Your task to perform on an android device: delete location history Image 0: 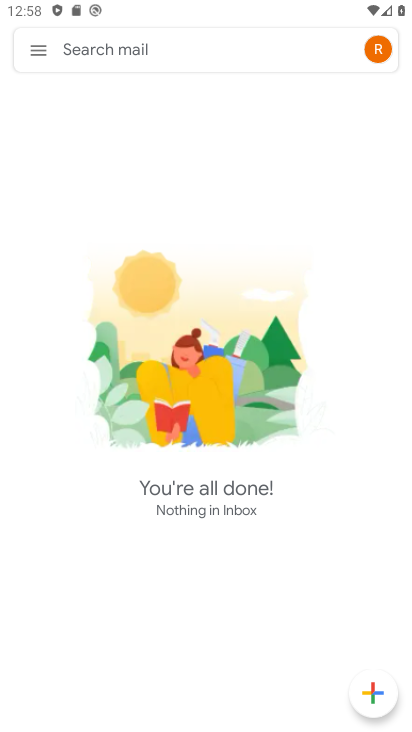
Step 0: press home button
Your task to perform on an android device: delete location history Image 1: 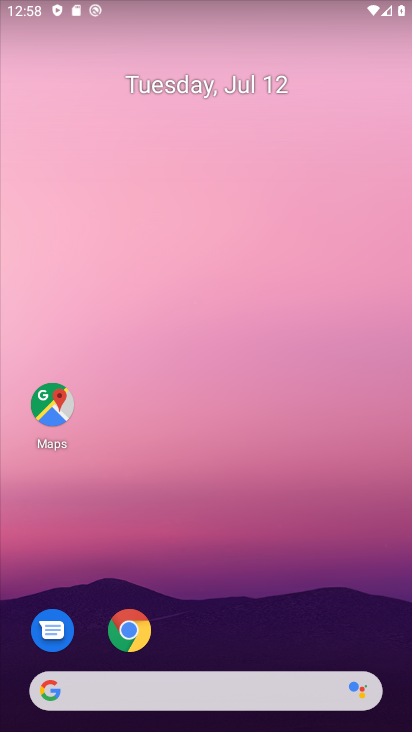
Step 1: click (53, 405)
Your task to perform on an android device: delete location history Image 2: 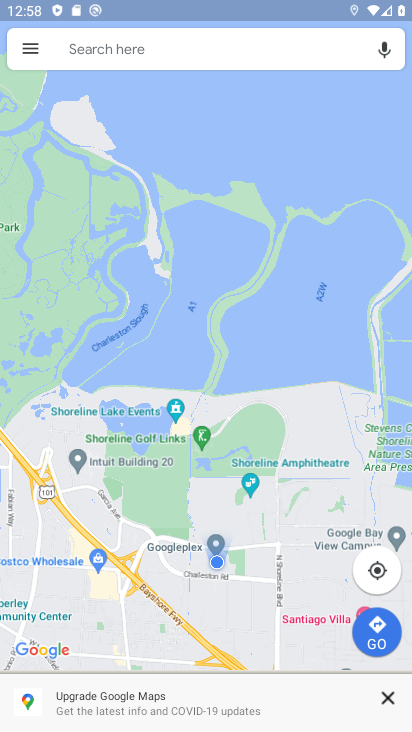
Step 2: click (31, 53)
Your task to perform on an android device: delete location history Image 3: 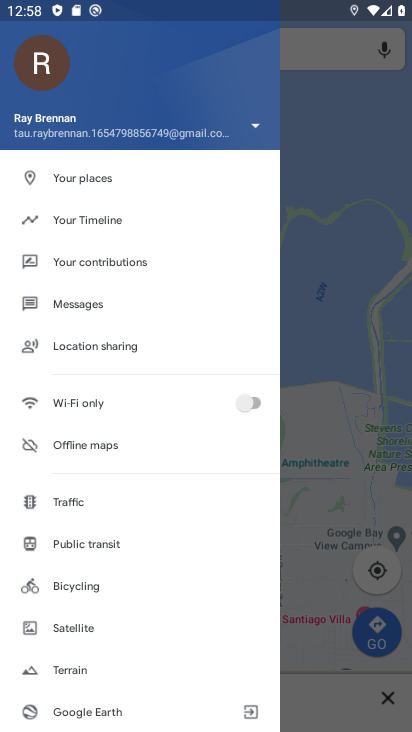
Step 3: drag from (116, 659) to (130, 322)
Your task to perform on an android device: delete location history Image 4: 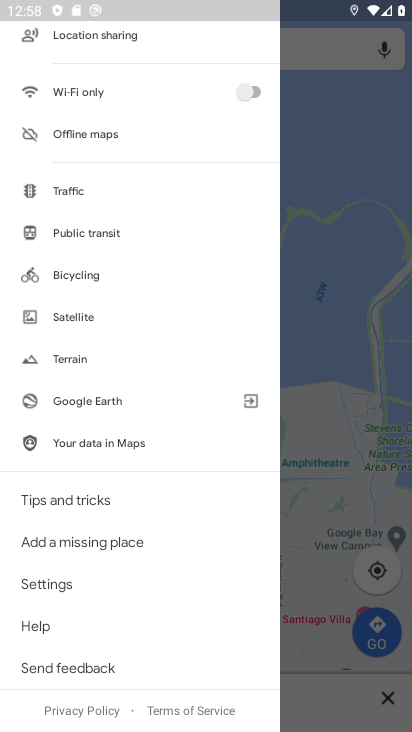
Step 4: click (52, 585)
Your task to perform on an android device: delete location history Image 5: 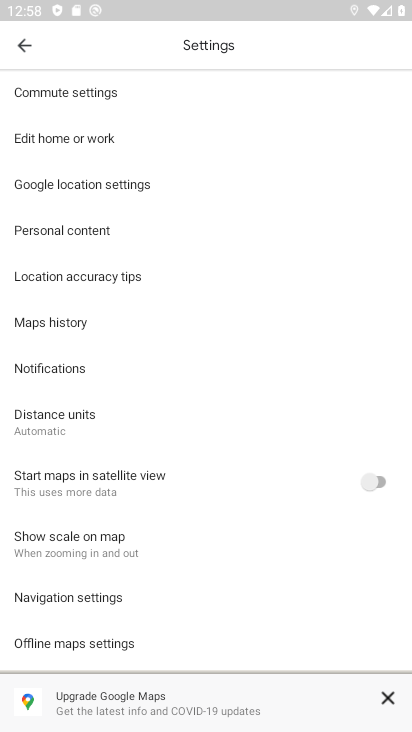
Step 5: click (47, 233)
Your task to perform on an android device: delete location history Image 6: 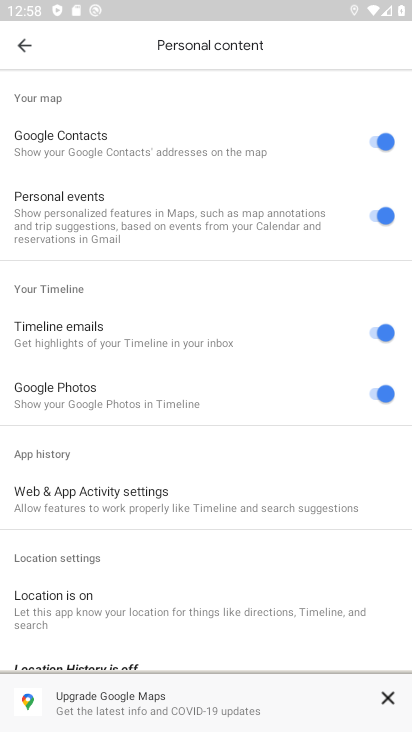
Step 6: drag from (166, 626) to (179, 266)
Your task to perform on an android device: delete location history Image 7: 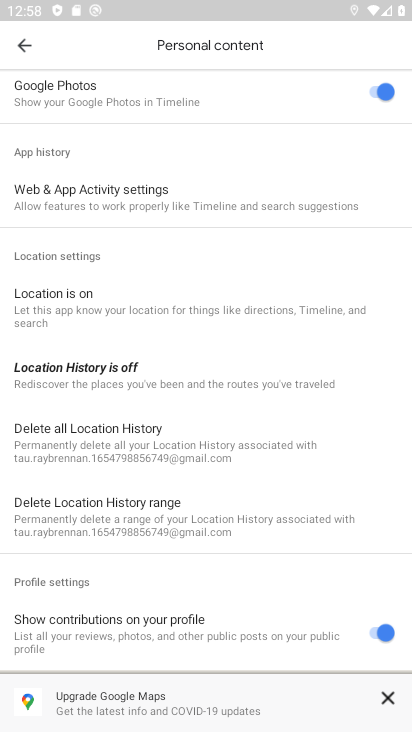
Step 7: click (57, 442)
Your task to perform on an android device: delete location history Image 8: 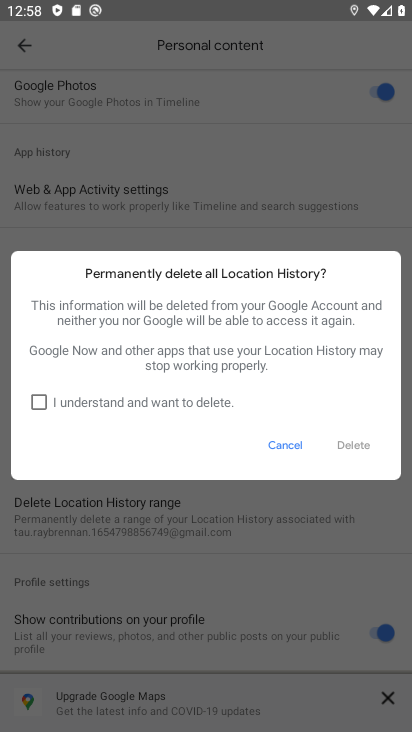
Step 8: click (33, 396)
Your task to perform on an android device: delete location history Image 9: 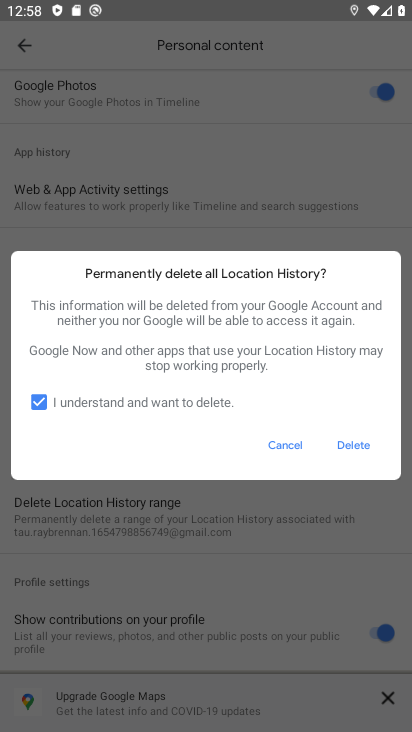
Step 9: click (349, 445)
Your task to perform on an android device: delete location history Image 10: 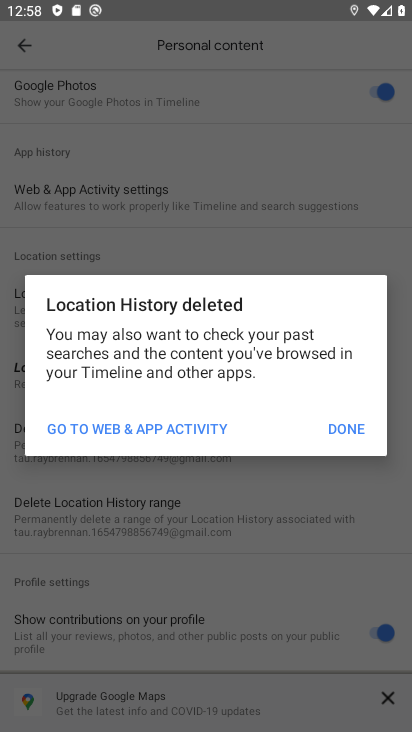
Step 10: click (345, 431)
Your task to perform on an android device: delete location history Image 11: 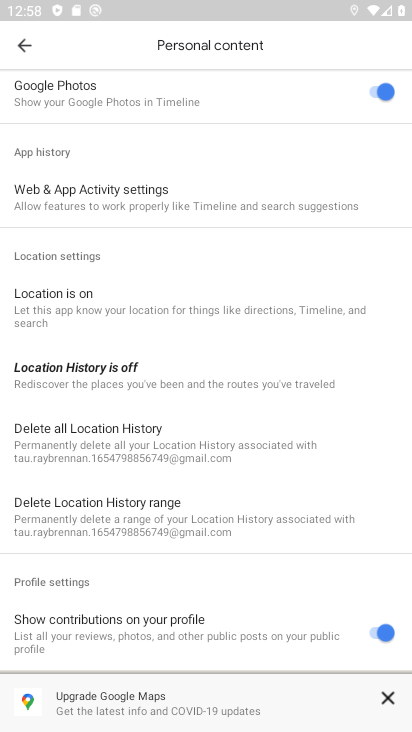
Step 11: task complete